Your task to perform on an android device: change text size in settings app Image 0: 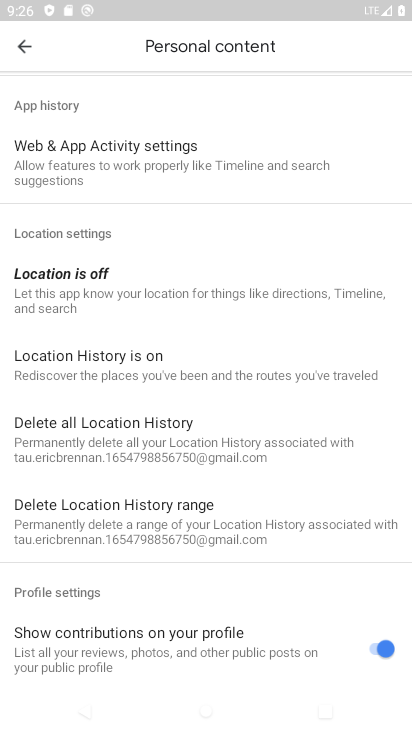
Step 0: press home button
Your task to perform on an android device: change text size in settings app Image 1: 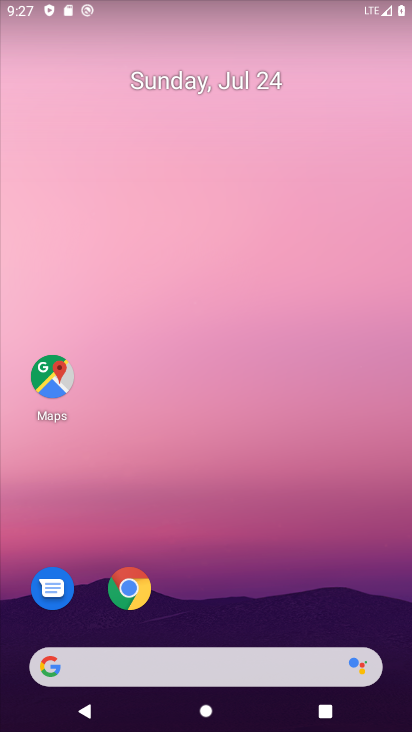
Step 1: drag from (263, 404) to (260, 14)
Your task to perform on an android device: change text size in settings app Image 2: 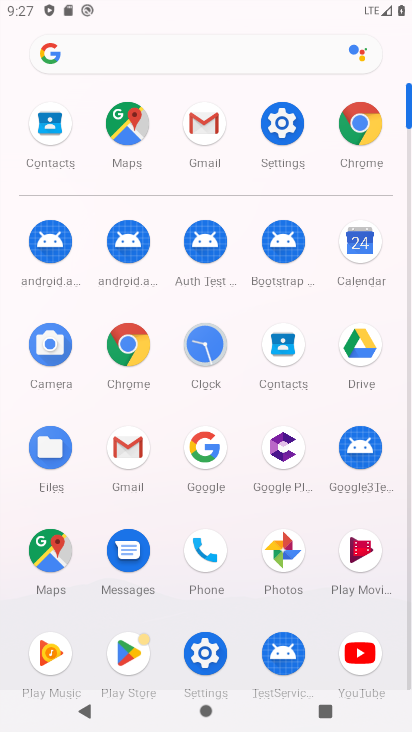
Step 2: click (290, 135)
Your task to perform on an android device: change text size in settings app Image 3: 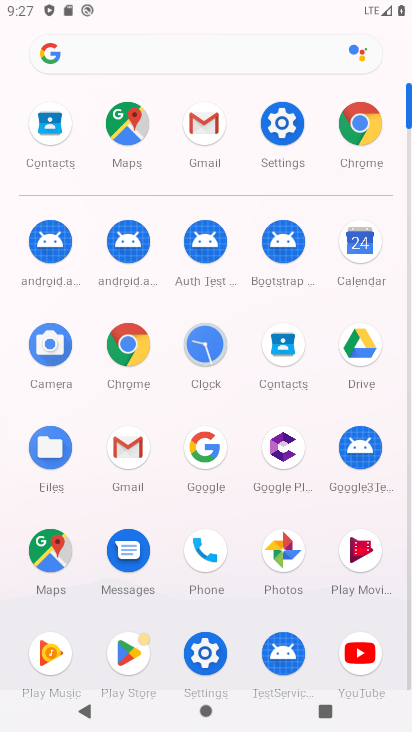
Step 3: click (290, 135)
Your task to perform on an android device: change text size in settings app Image 4: 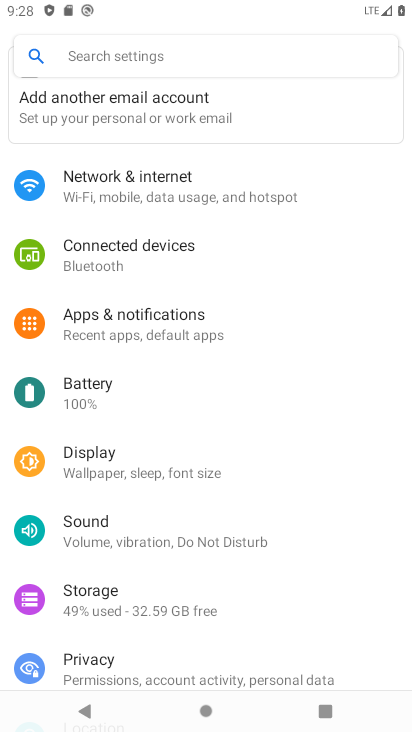
Step 4: click (214, 462)
Your task to perform on an android device: change text size in settings app Image 5: 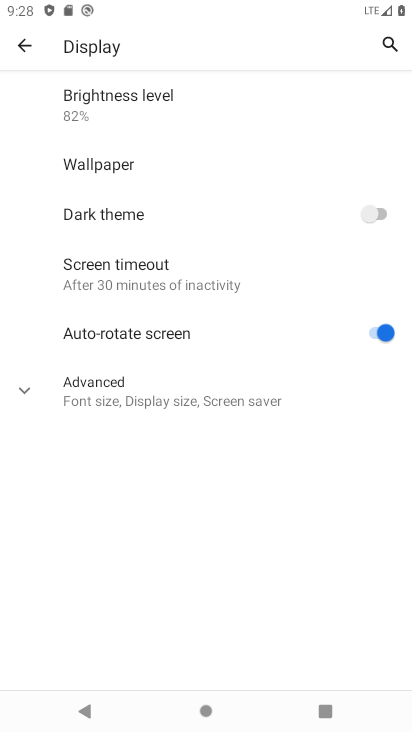
Step 5: click (199, 394)
Your task to perform on an android device: change text size in settings app Image 6: 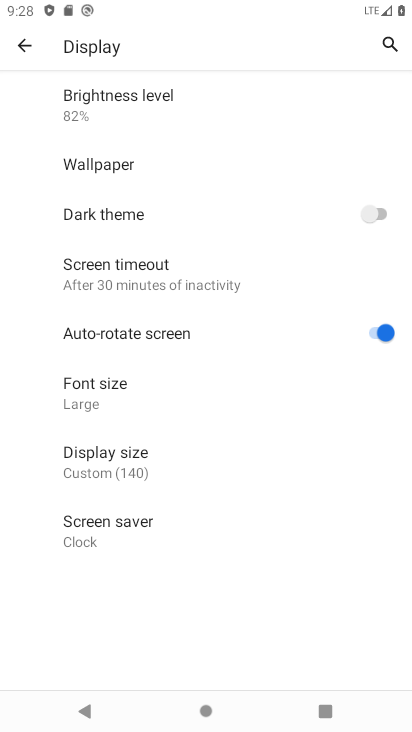
Step 6: click (139, 398)
Your task to perform on an android device: change text size in settings app Image 7: 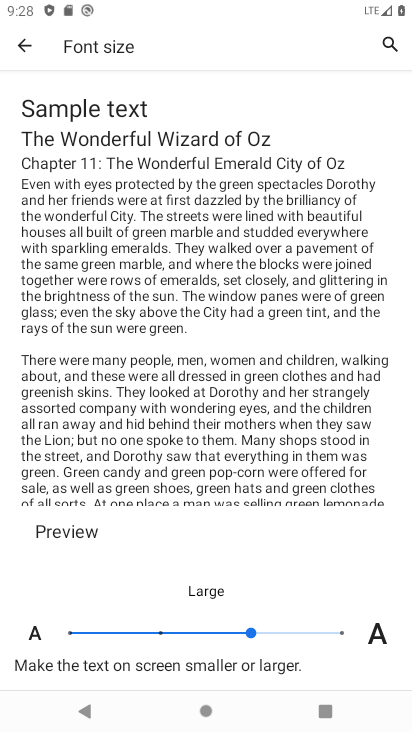
Step 7: click (167, 633)
Your task to perform on an android device: change text size in settings app Image 8: 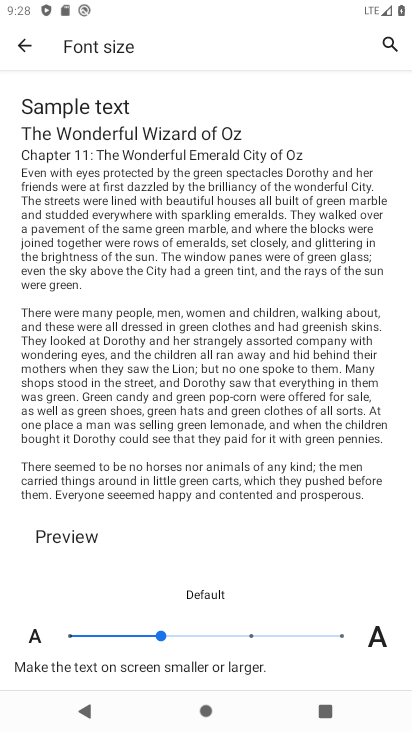
Step 8: task complete